Your task to perform on an android device: change timer sound Image 0: 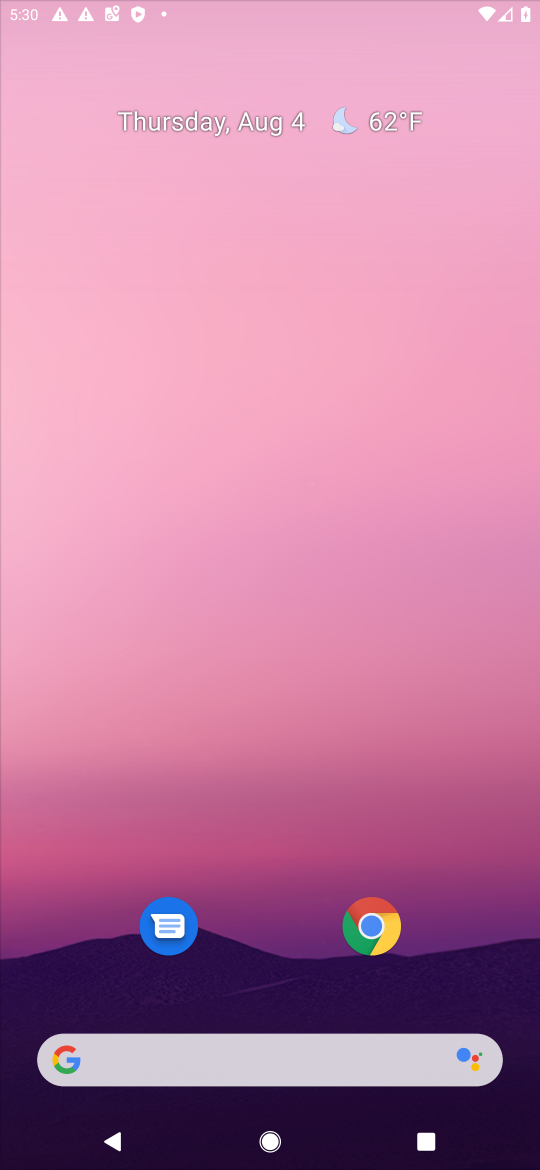
Step 0: press home button
Your task to perform on an android device: change timer sound Image 1: 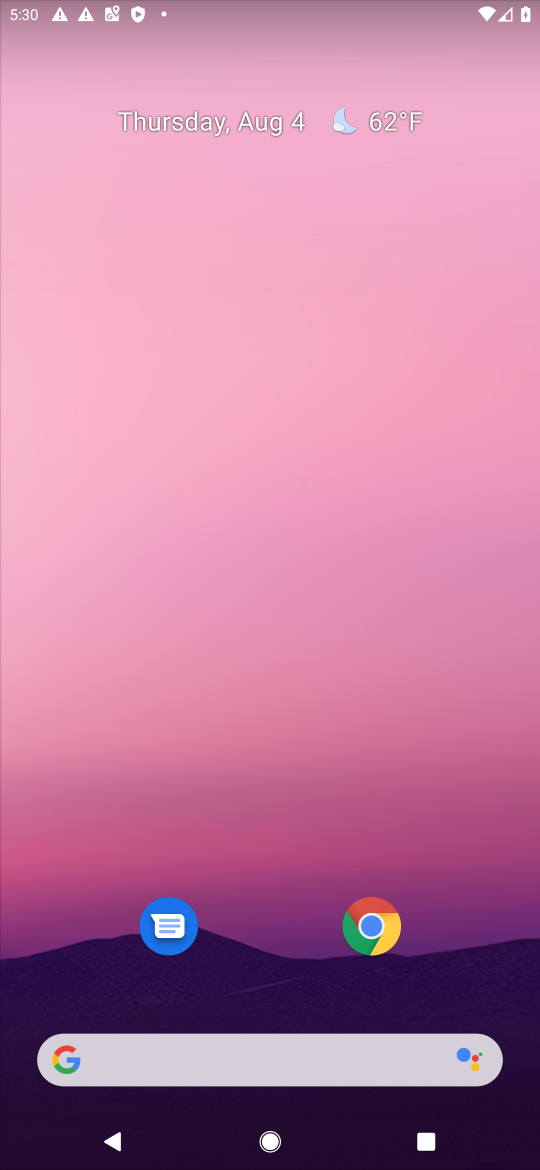
Step 1: drag from (264, 908) to (288, 230)
Your task to perform on an android device: change timer sound Image 2: 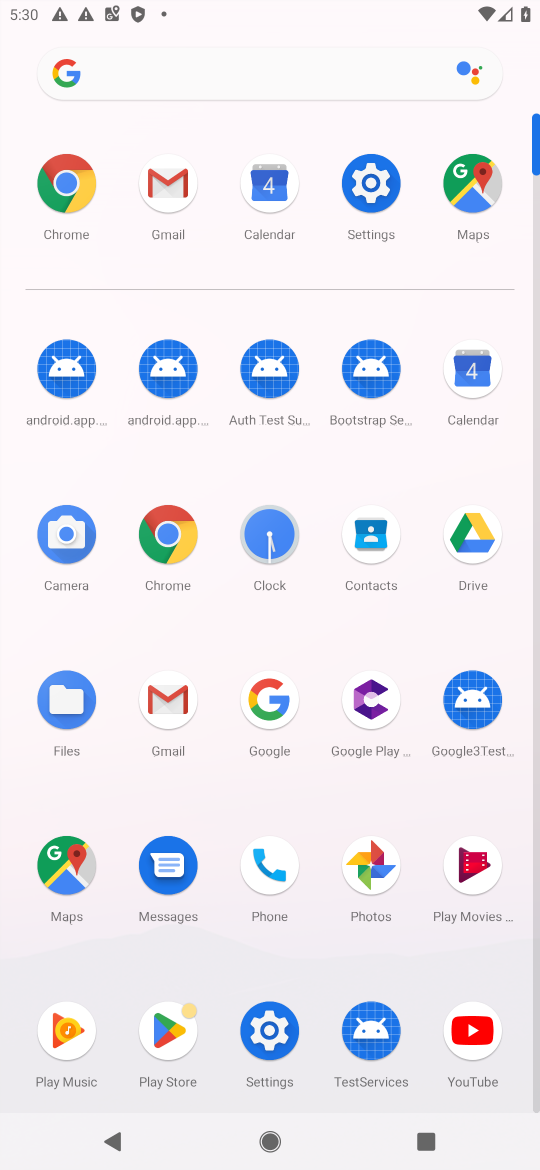
Step 2: click (271, 534)
Your task to perform on an android device: change timer sound Image 3: 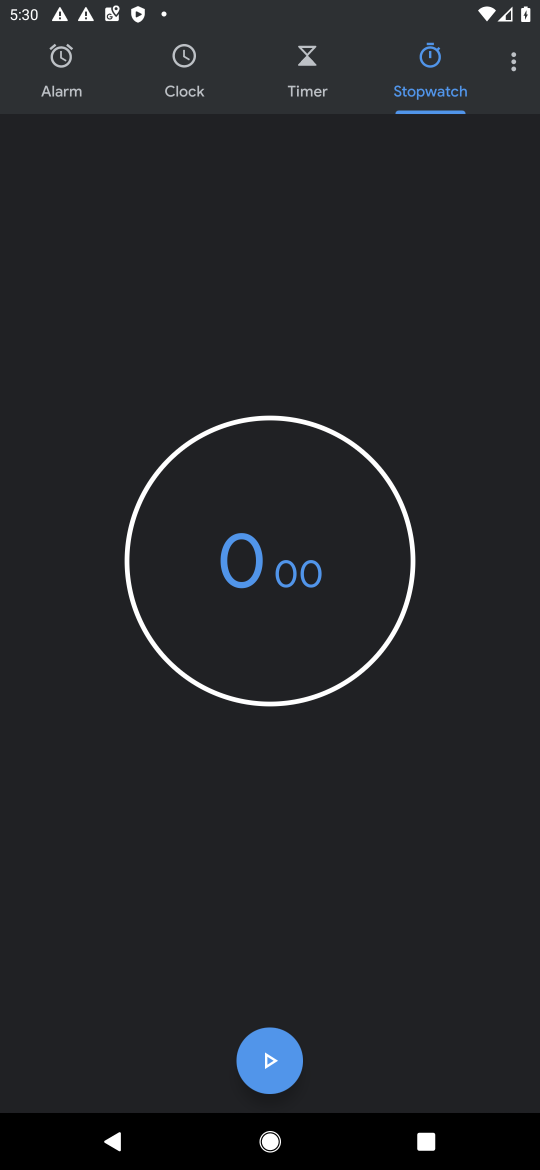
Step 3: click (520, 68)
Your task to perform on an android device: change timer sound Image 4: 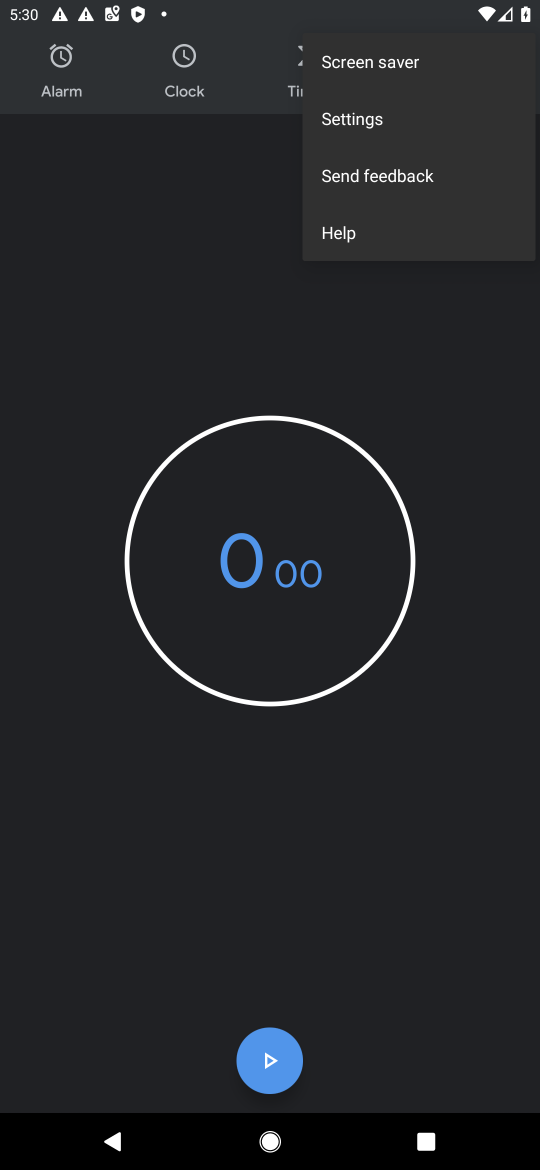
Step 4: click (368, 130)
Your task to perform on an android device: change timer sound Image 5: 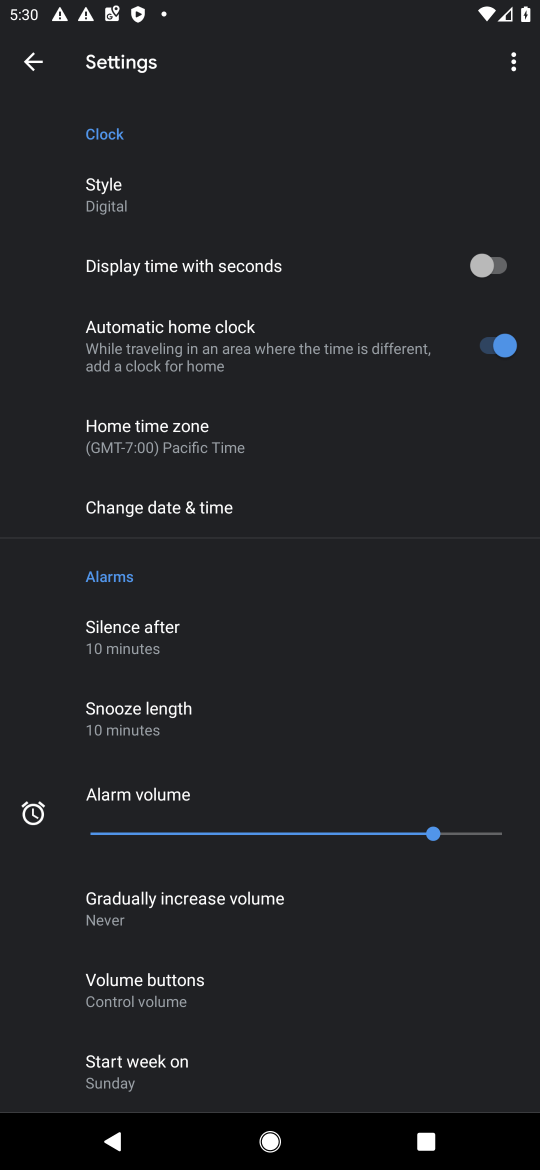
Step 5: drag from (382, 696) to (369, 251)
Your task to perform on an android device: change timer sound Image 6: 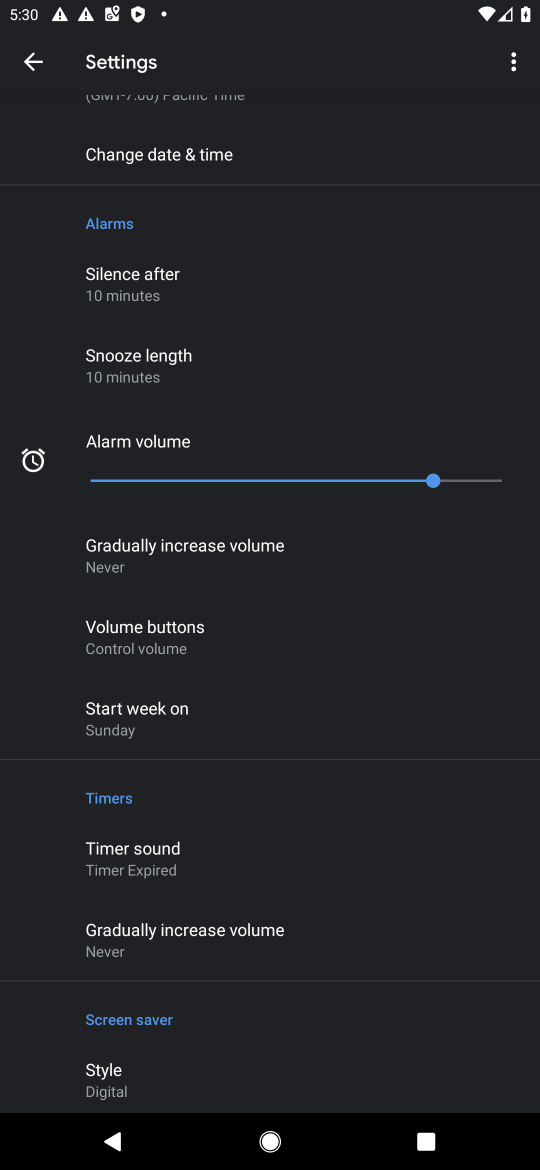
Step 6: drag from (288, 1062) to (273, 627)
Your task to perform on an android device: change timer sound Image 7: 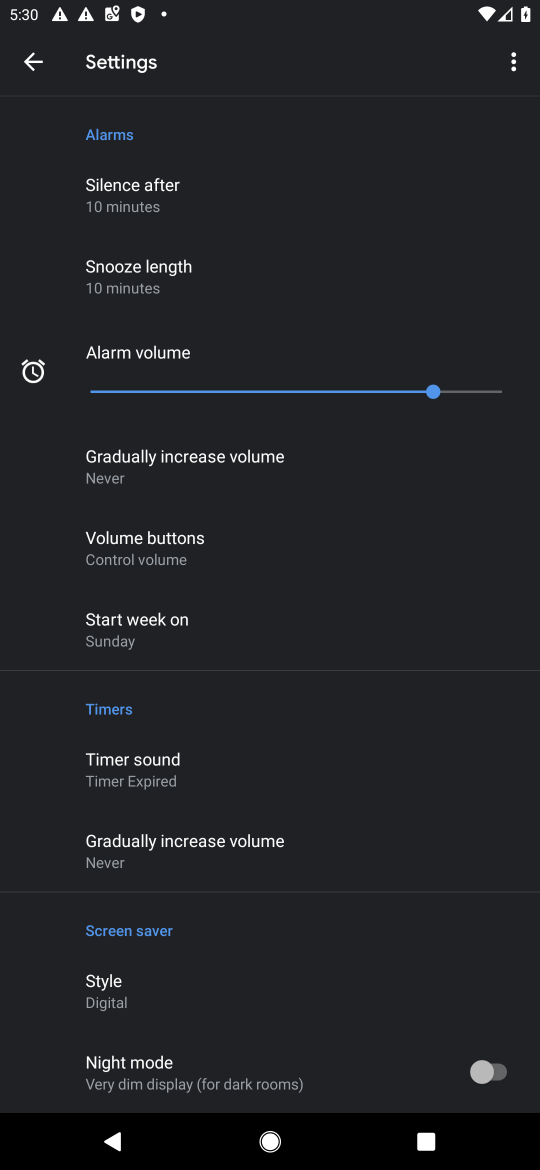
Step 7: click (142, 763)
Your task to perform on an android device: change timer sound Image 8: 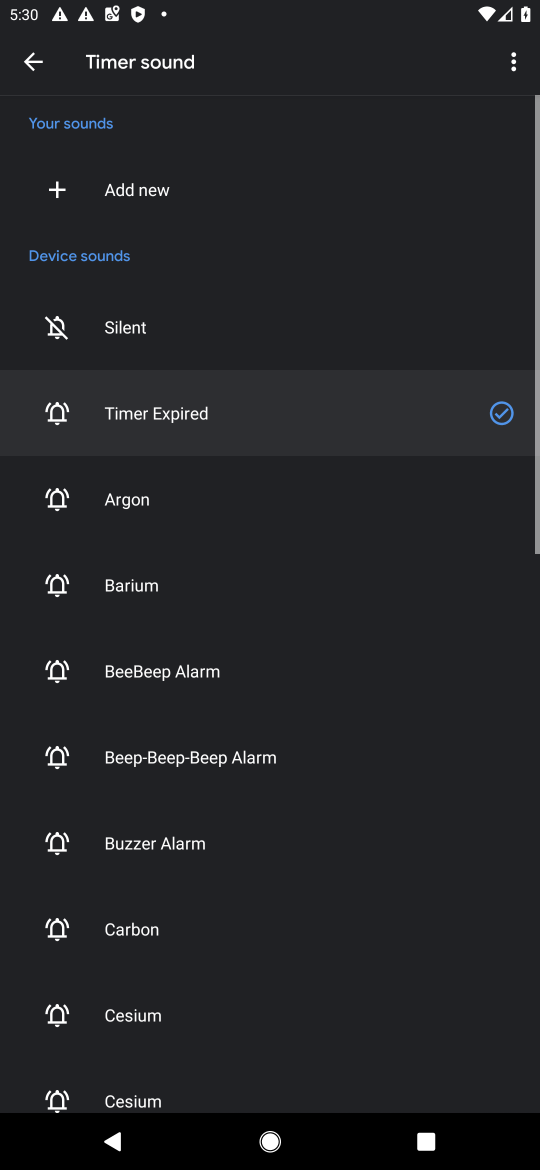
Step 8: click (144, 512)
Your task to perform on an android device: change timer sound Image 9: 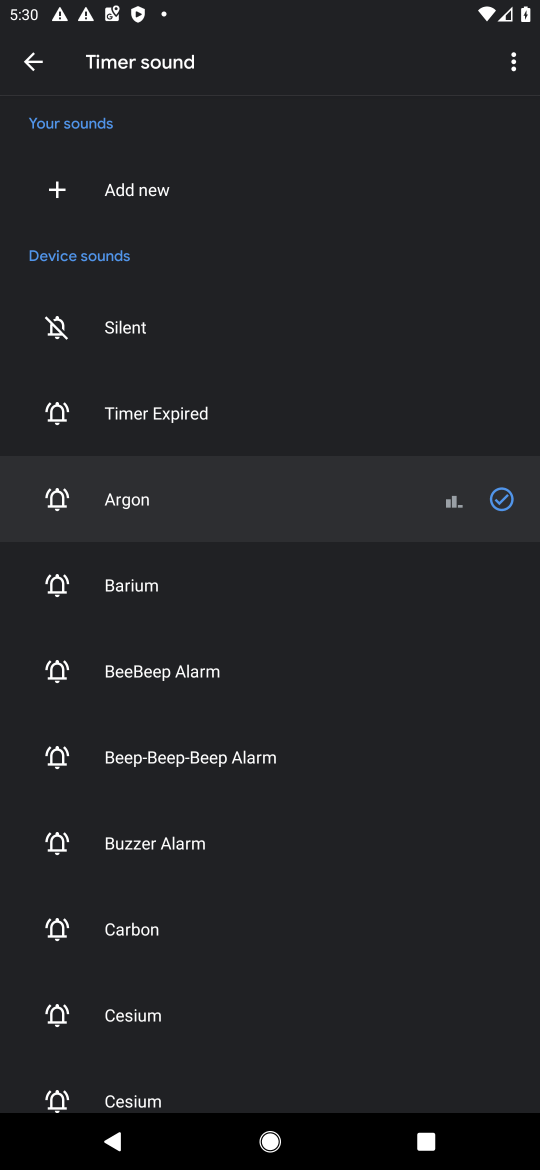
Step 9: task complete